Your task to perform on an android device: turn off location Image 0: 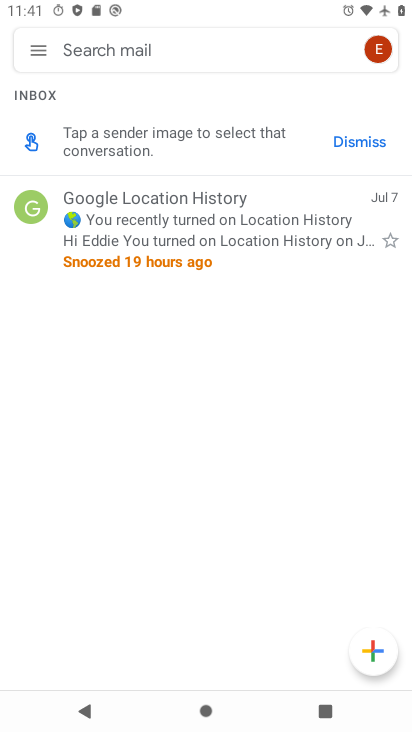
Step 0: press home button
Your task to perform on an android device: turn off location Image 1: 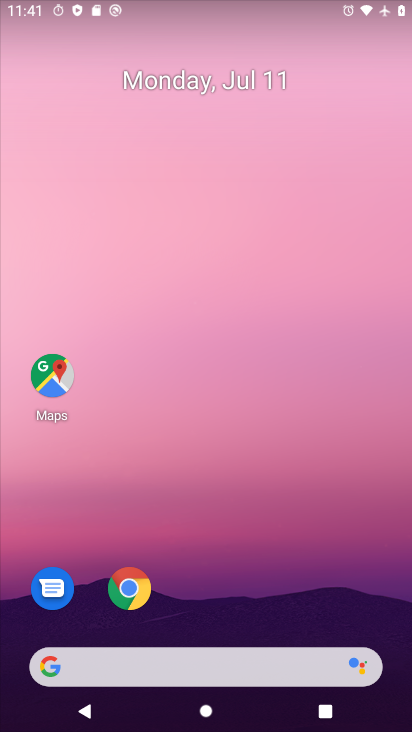
Step 1: drag from (236, 671) to (371, 140)
Your task to perform on an android device: turn off location Image 2: 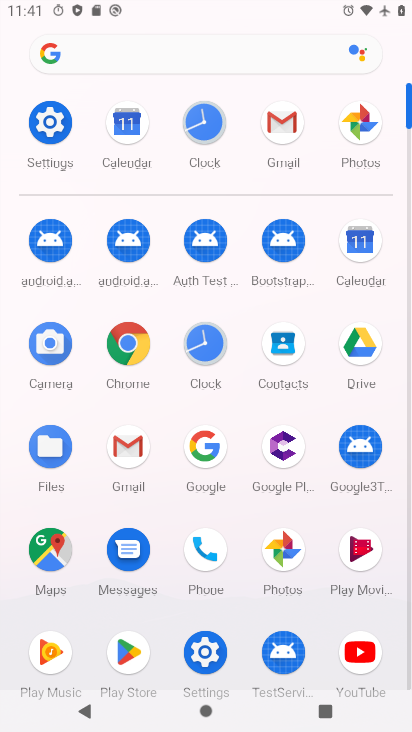
Step 2: click (52, 121)
Your task to perform on an android device: turn off location Image 3: 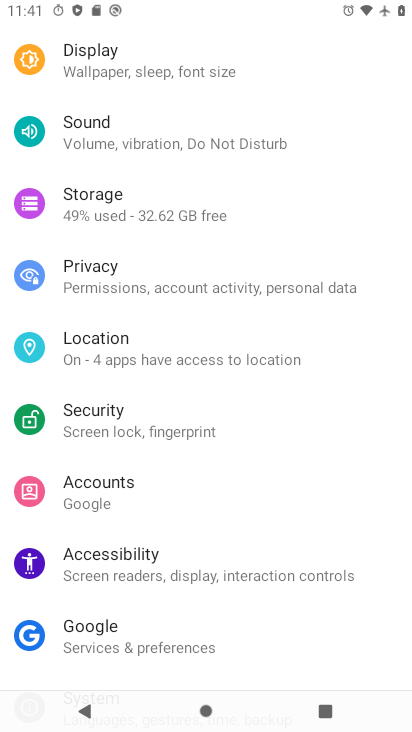
Step 3: drag from (225, 89) to (238, 533)
Your task to perform on an android device: turn off location Image 4: 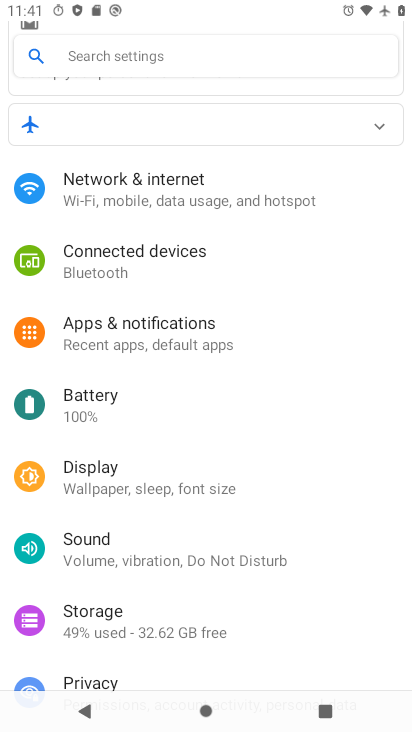
Step 4: drag from (173, 636) to (272, 241)
Your task to perform on an android device: turn off location Image 5: 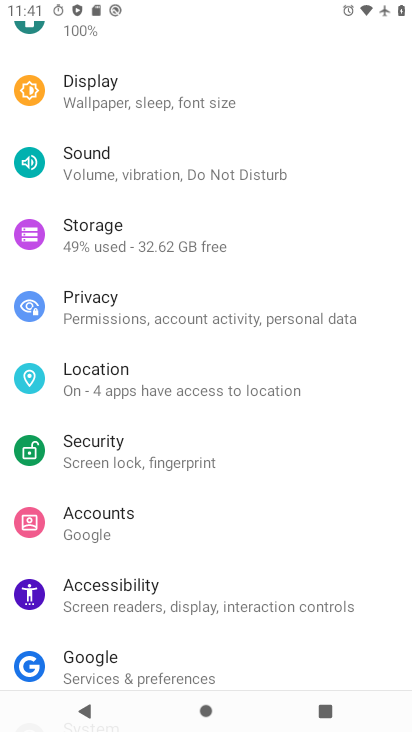
Step 5: click (148, 380)
Your task to perform on an android device: turn off location Image 6: 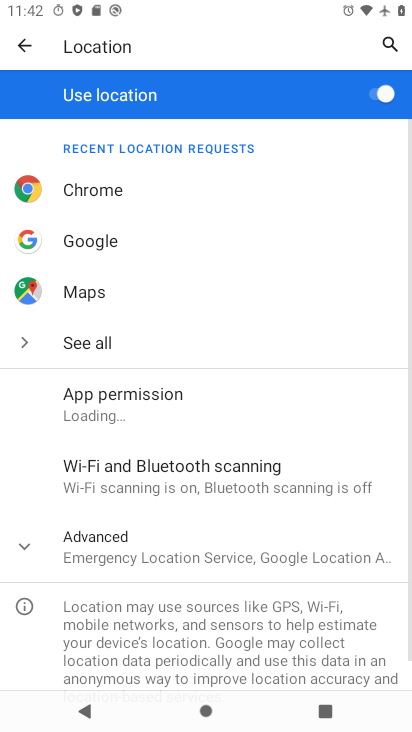
Step 6: click (373, 100)
Your task to perform on an android device: turn off location Image 7: 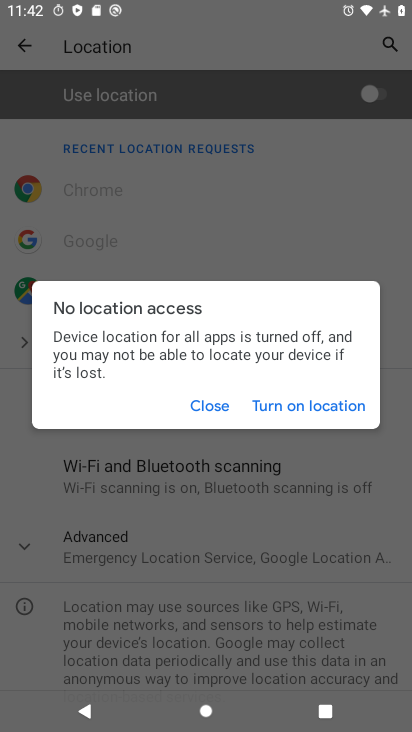
Step 7: click (222, 410)
Your task to perform on an android device: turn off location Image 8: 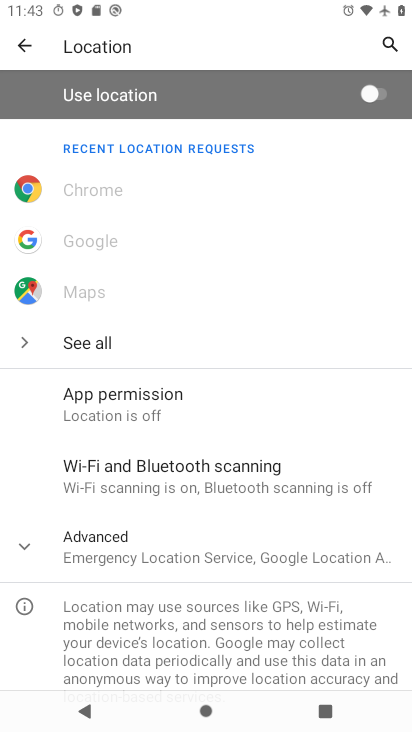
Step 8: task complete